Your task to perform on an android device: Show me recent news Image 0: 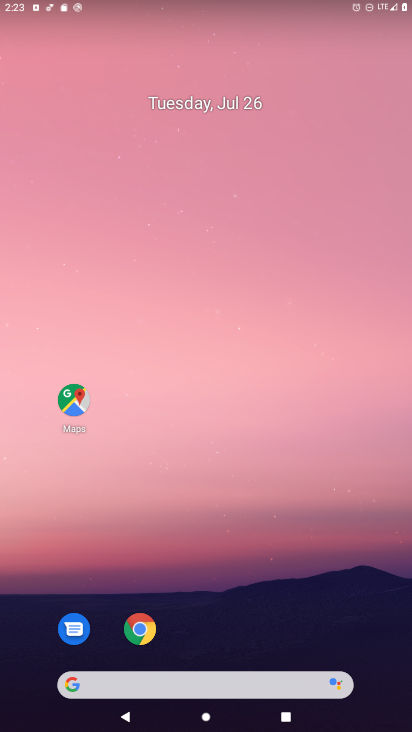
Step 0: drag from (3, 315) to (384, 320)
Your task to perform on an android device: Show me recent news Image 1: 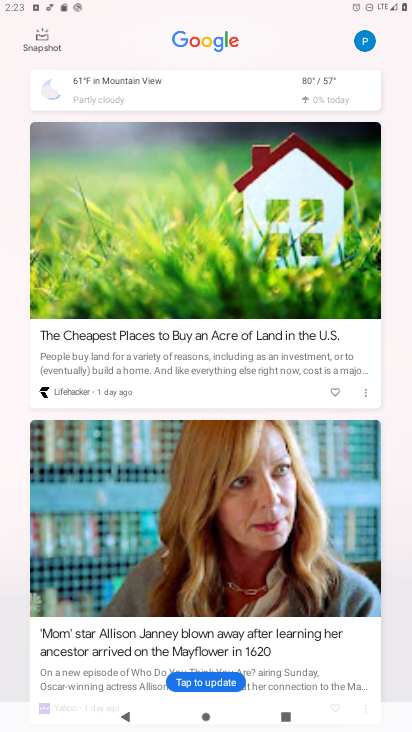
Step 1: task complete